Your task to perform on an android device: When is my next appointment? Image 0: 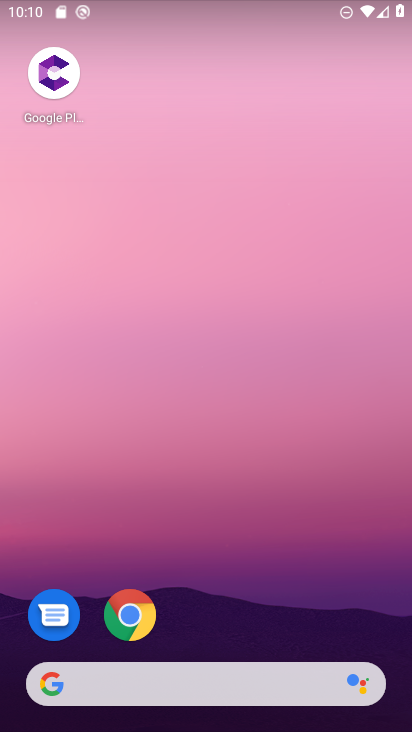
Step 0: drag from (372, 638) to (271, 123)
Your task to perform on an android device: When is my next appointment? Image 1: 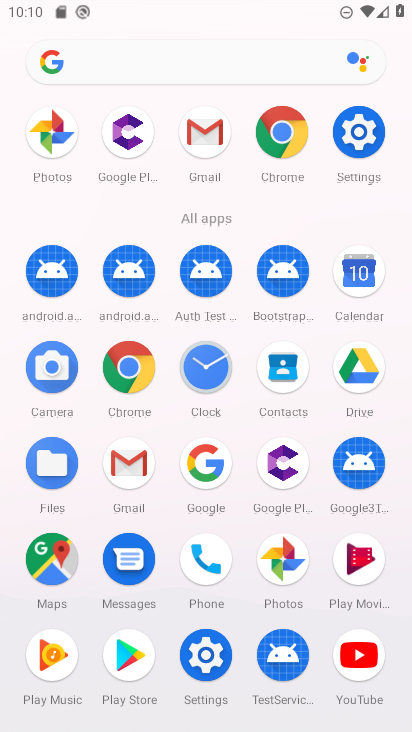
Step 1: click (359, 275)
Your task to perform on an android device: When is my next appointment? Image 2: 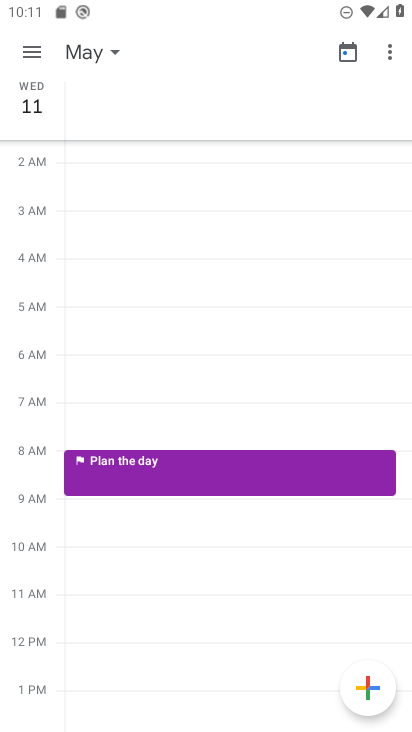
Step 2: click (31, 46)
Your task to perform on an android device: When is my next appointment? Image 3: 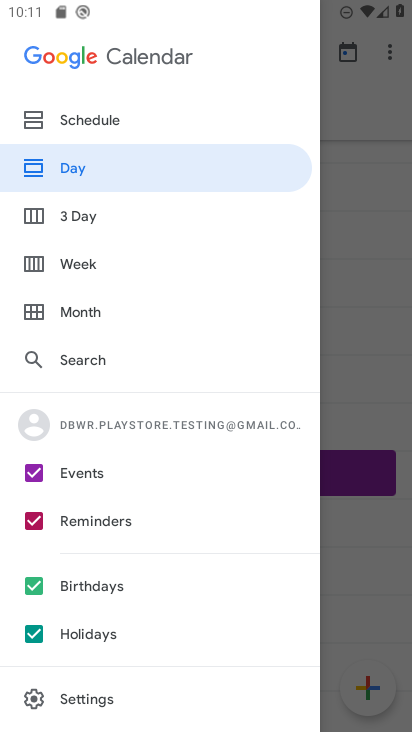
Step 3: click (96, 121)
Your task to perform on an android device: When is my next appointment? Image 4: 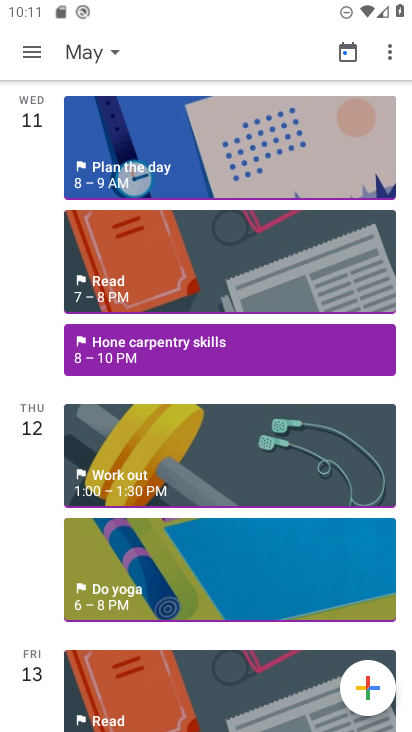
Step 4: task complete